Your task to perform on an android device: Open Yahoo.com Image 0: 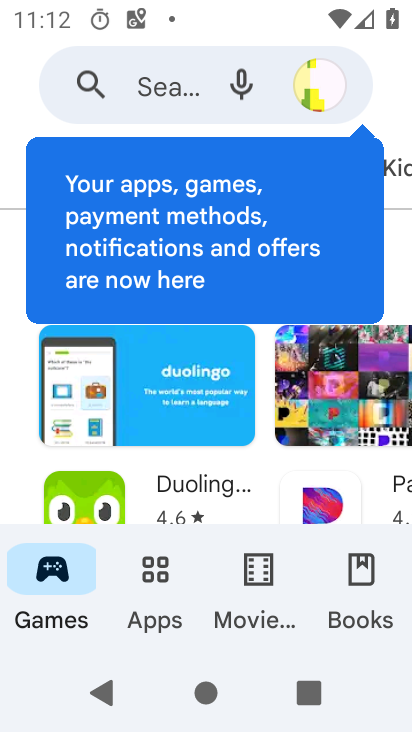
Step 0: press home button
Your task to perform on an android device: Open Yahoo.com Image 1: 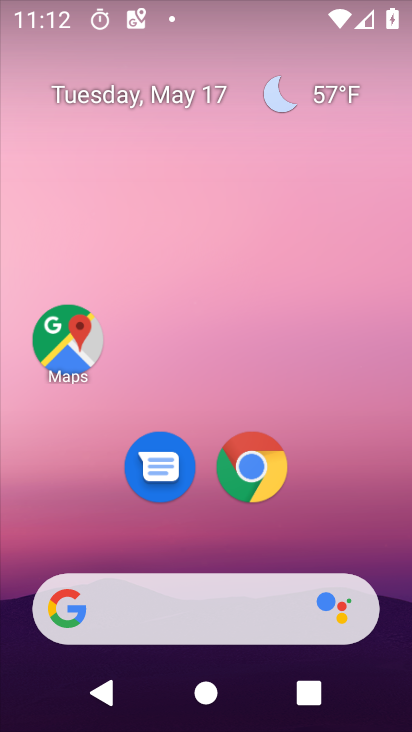
Step 1: click (252, 472)
Your task to perform on an android device: Open Yahoo.com Image 2: 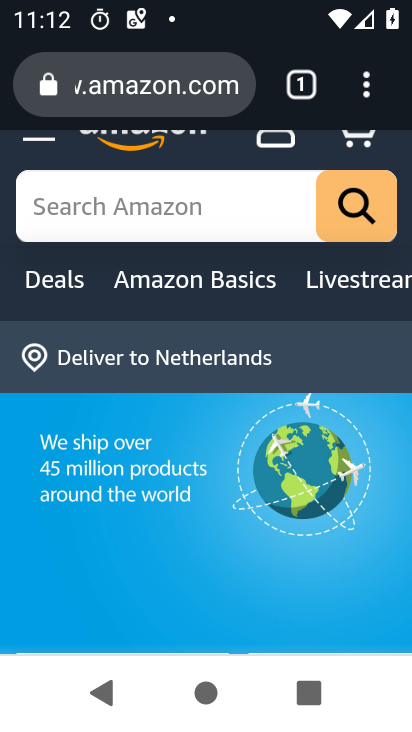
Step 2: click (373, 82)
Your task to perform on an android device: Open Yahoo.com Image 3: 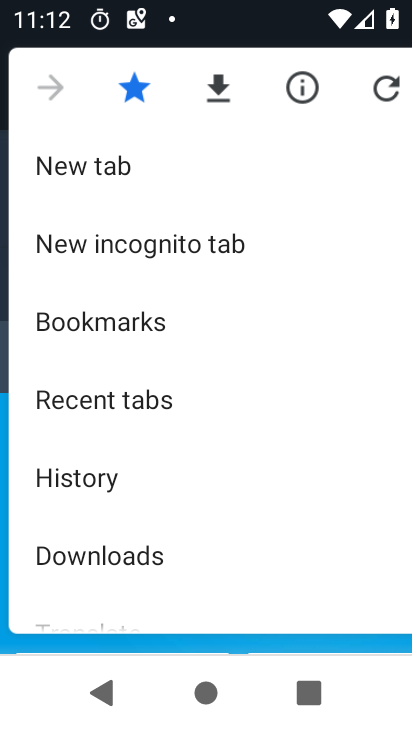
Step 3: click (92, 157)
Your task to perform on an android device: Open Yahoo.com Image 4: 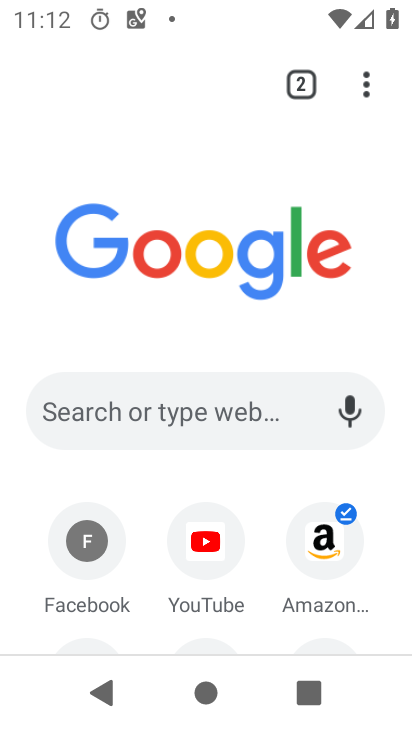
Step 4: drag from (143, 621) to (144, 309)
Your task to perform on an android device: Open Yahoo.com Image 5: 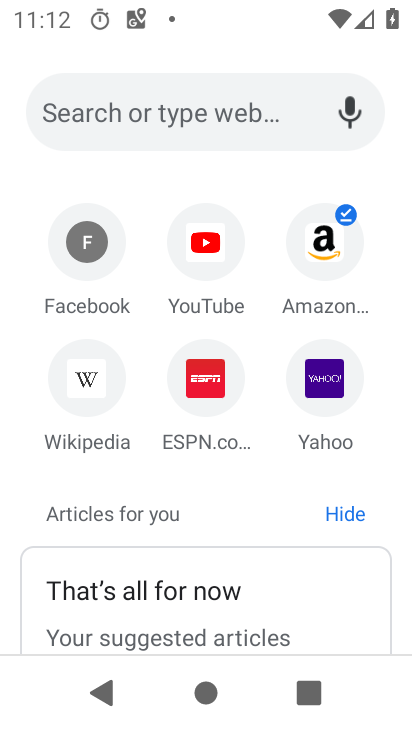
Step 5: click (327, 370)
Your task to perform on an android device: Open Yahoo.com Image 6: 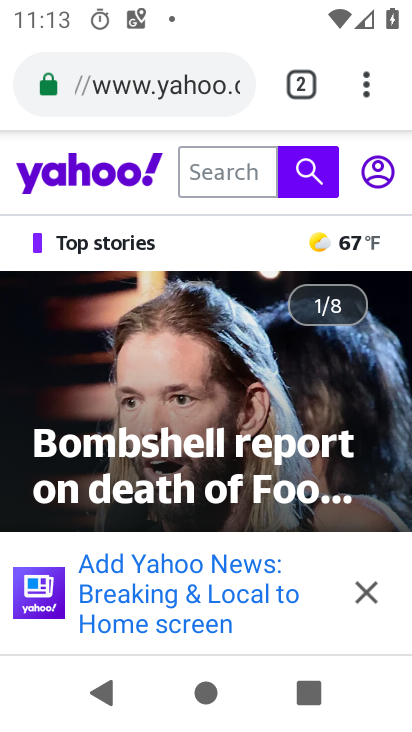
Step 6: task complete